Your task to perform on an android device: open a new tab in the chrome app Image 0: 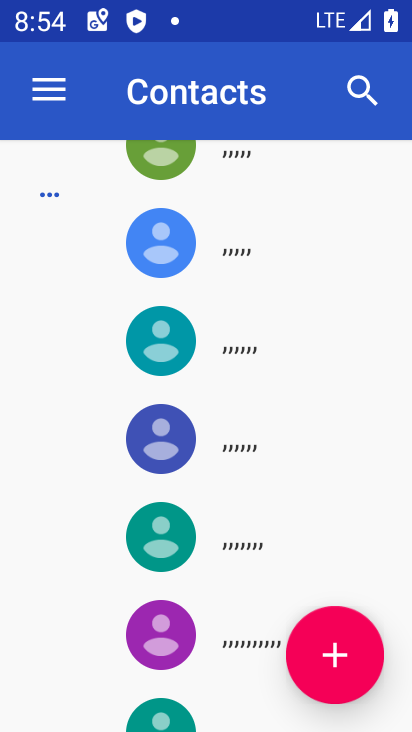
Step 0: press home button
Your task to perform on an android device: open a new tab in the chrome app Image 1: 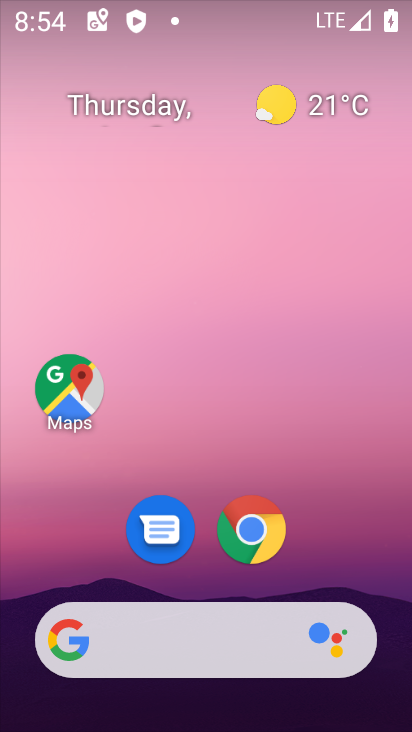
Step 1: click (256, 534)
Your task to perform on an android device: open a new tab in the chrome app Image 2: 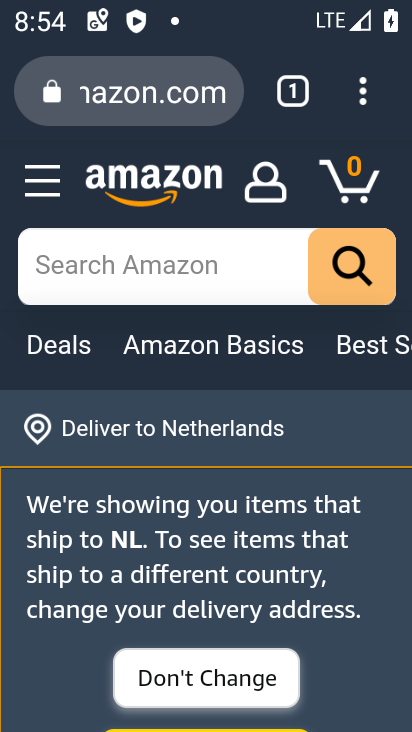
Step 2: click (368, 89)
Your task to perform on an android device: open a new tab in the chrome app Image 3: 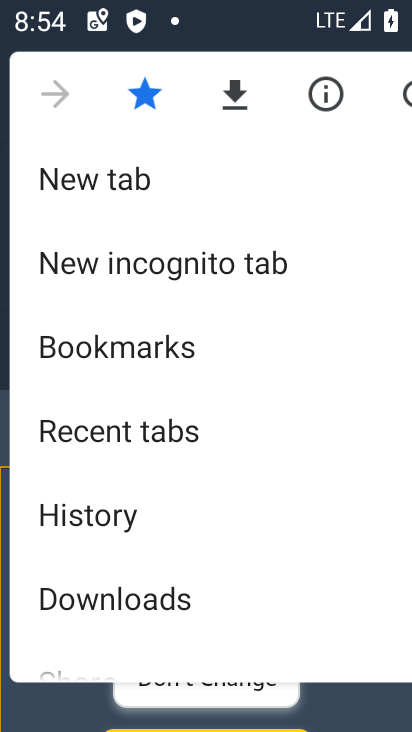
Step 3: click (196, 201)
Your task to perform on an android device: open a new tab in the chrome app Image 4: 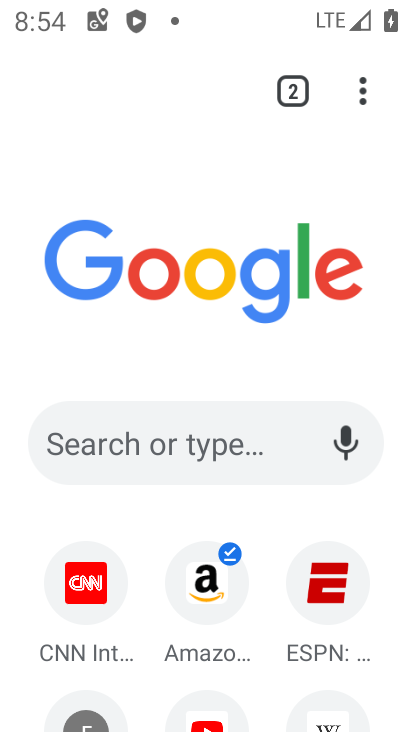
Step 4: task complete